Your task to perform on an android device: turn on data saver in the chrome app Image 0: 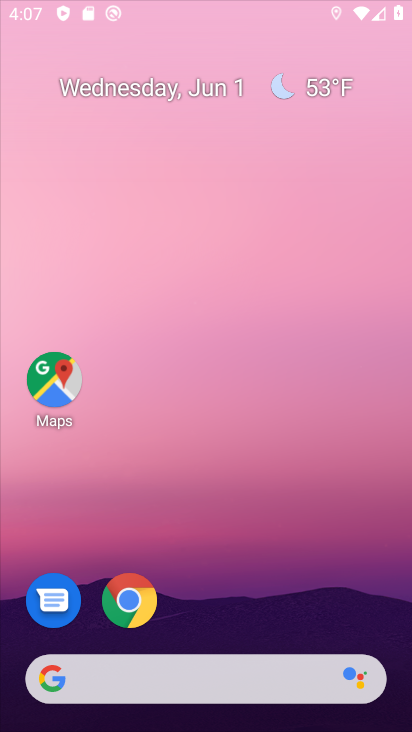
Step 0: drag from (236, 685) to (143, 169)
Your task to perform on an android device: turn on data saver in the chrome app Image 1: 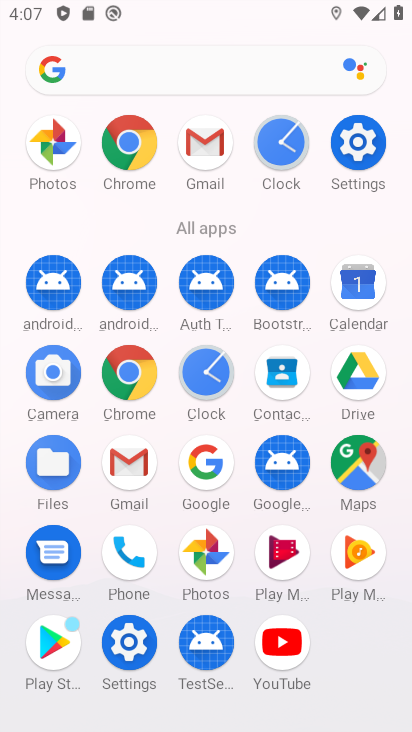
Step 1: click (134, 124)
Your task to perform on an android device: turn on data saver in the chrome app Image 2: 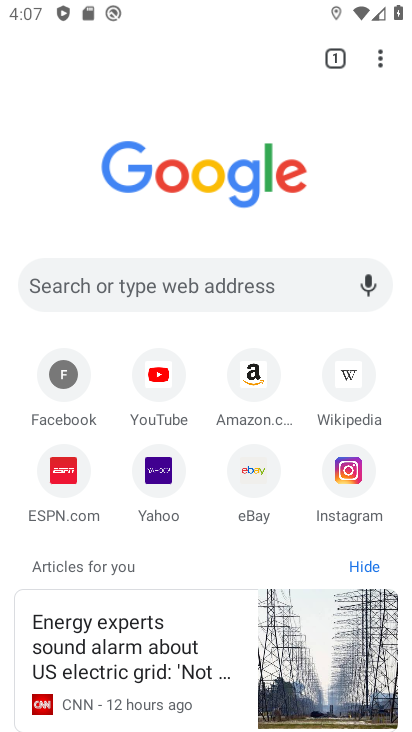
Step 2: drag from (382, 61) to (148, 502)
Your task to perform on an android device: turn on data saver in the chrome app Image 3: 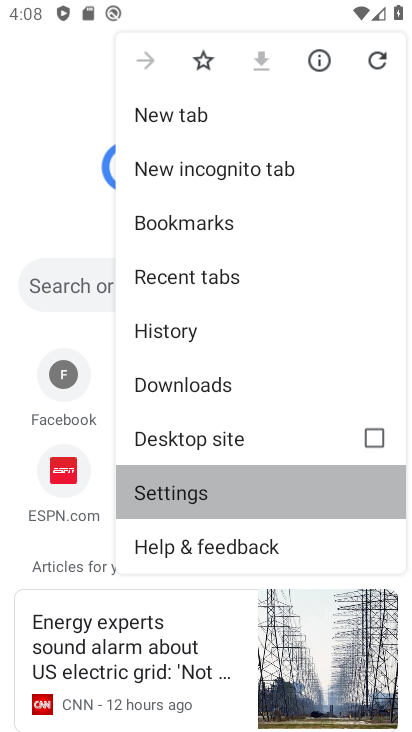
Step 3: click (148, 502)
Your task to perform on an android device: turn on data saver in the chrome app Image 4: 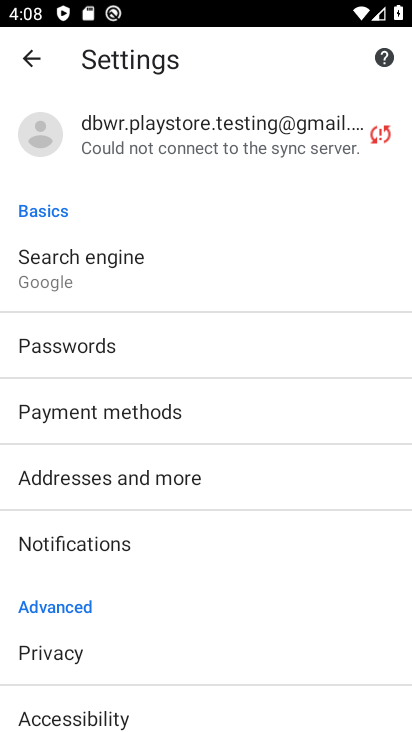
Step 4: drag from (148, 545) to (106, 264)
Your task to perform on an android device: turn on data saver in the chrome app Image 5: 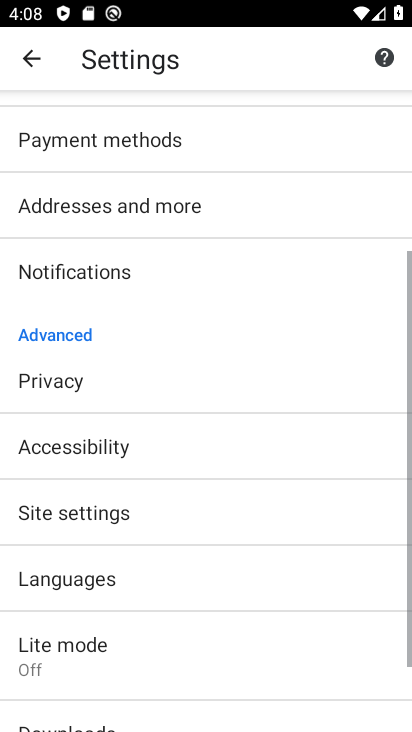
Step 5: drag from (146, 546) to (140, 315)
Your task to perform on an android device: turn on data saver in the chrome app Image 6: 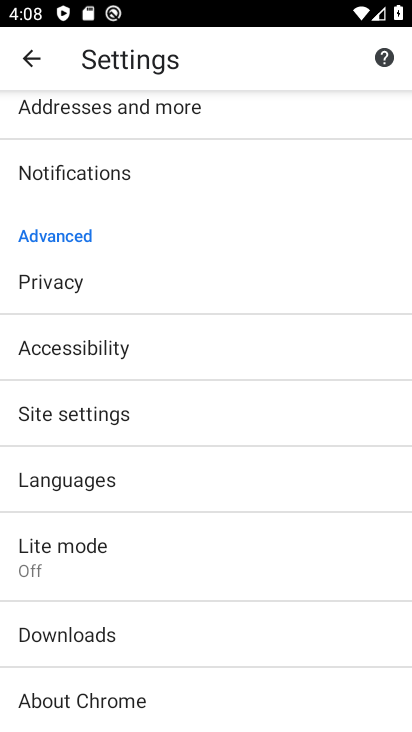
Step 6: click (57, 548)
Your task to perform on an android device: turn on data saver in the chrome app Image 7: 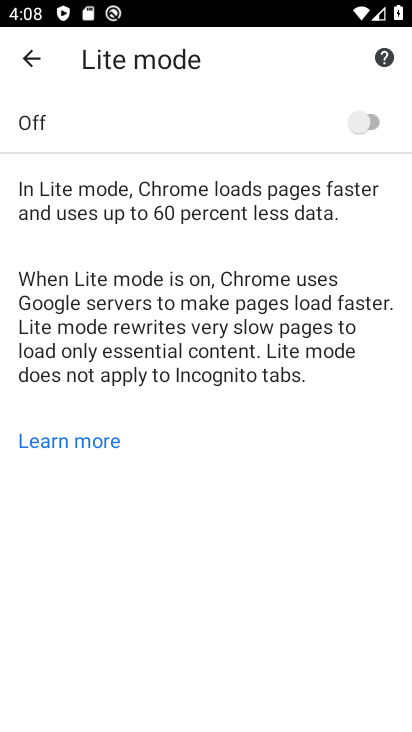
Step 7: click (357, 130)
Your task to perform on an android device: turn on data saver in the chrome app Image 8: 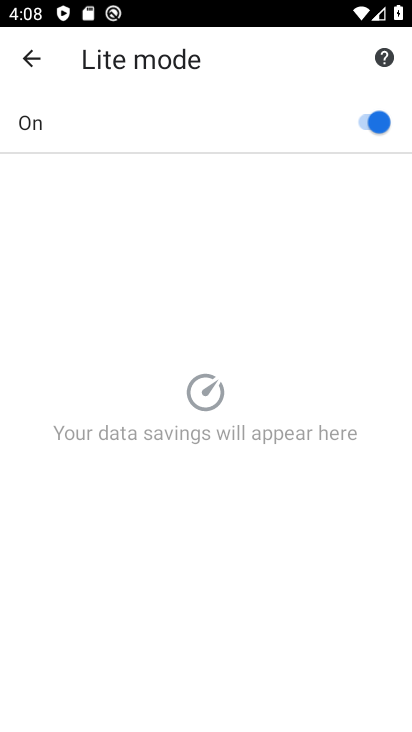
Step 8: task complete